Your task to perform on an android device: Go to location settings Image 0: 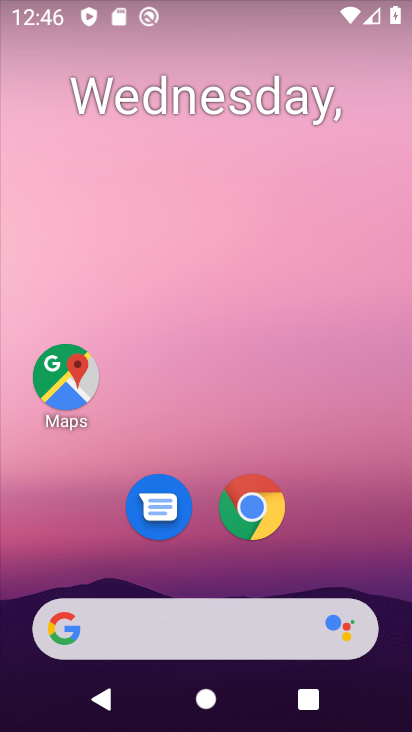
Step 0: drag from (371, 440) to (329, 23)
Your task to perform on an android device: Go to location settings Image 1: 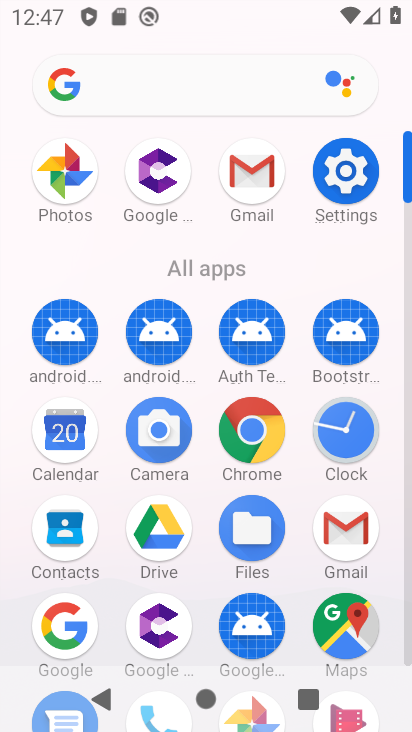
Step 1: click (347, 168)
Your task to perform on an android device: Go to location settings Image 2: 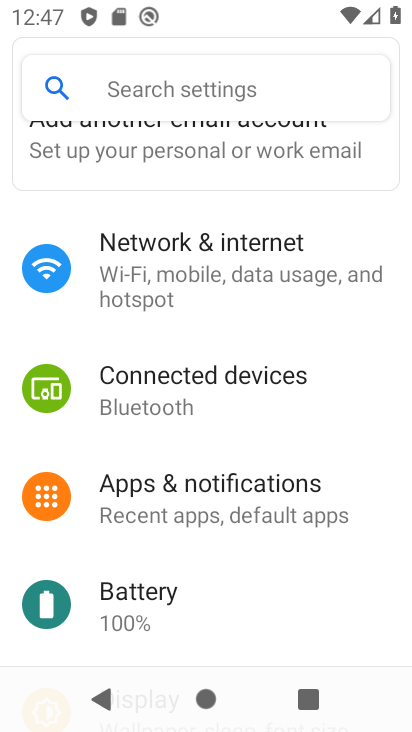
Step 2: drag from (200, 561) to (123, 137)
Your task to perform on an android device: Go to location settings Image 3: 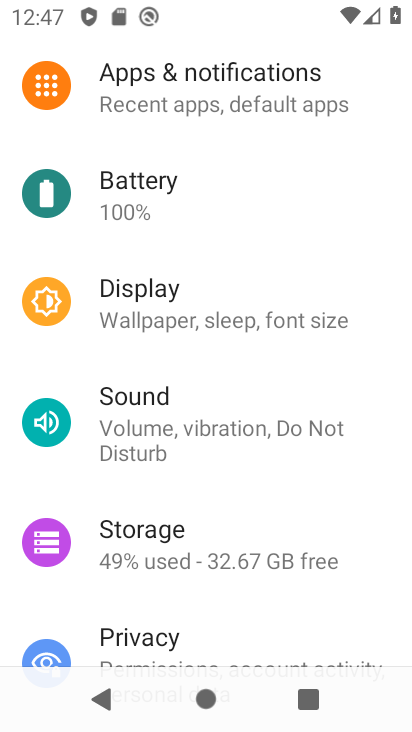
Step 3: drag from (202, 477) to (230, 184)
Your task to perform on an android device: Go to location settings Image 4: 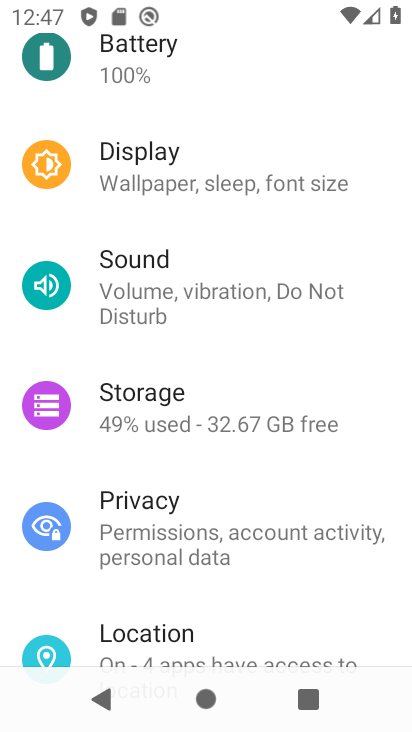
Step 4: drag from (245, 525) to (264, 258)
Your task to perform on an android device: Go to location settings Image 5: 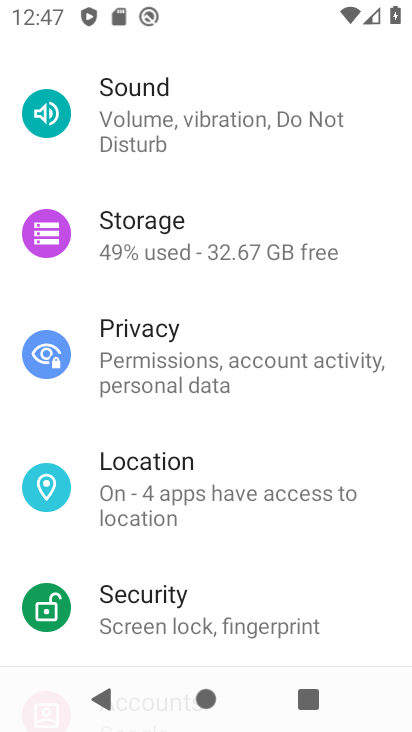
Step 5: click (192, 472)
Your task to perform on an android device: Go to location settings Image 6: 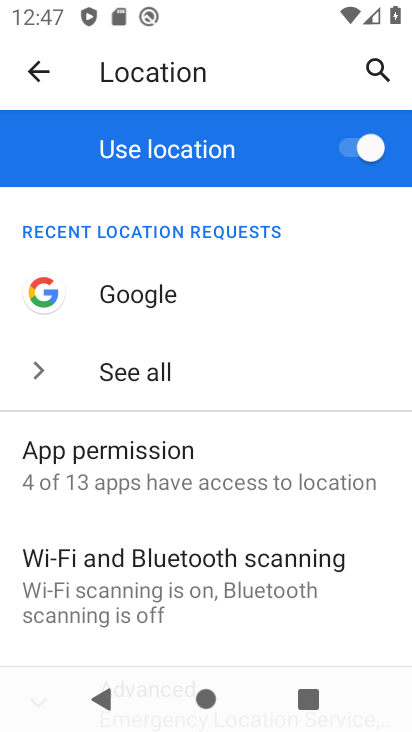
Step 6: task complete